Your task to perform on an android device: Go to internet settings Image 0: 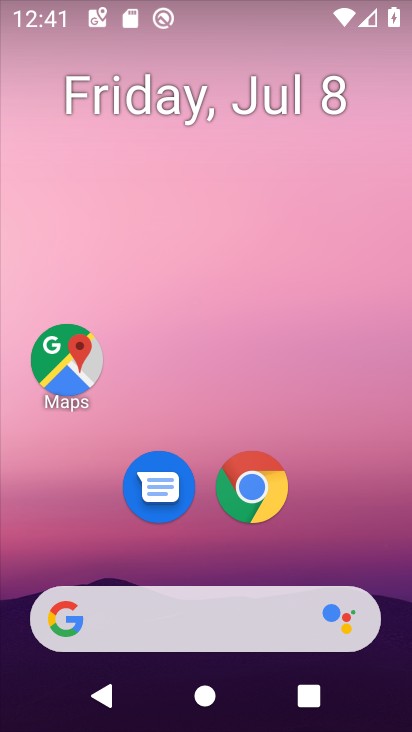
Step 0: drag from (377, 550) to (371, 95)
Your task to perform on an android device: Go to internet settings Image 1: 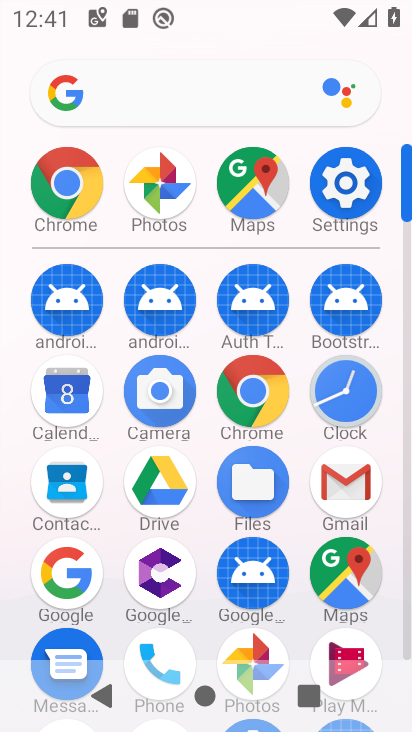
Step 1: click (362, 189)
Your task to perform on an android device: Go to internet settings Image 2: 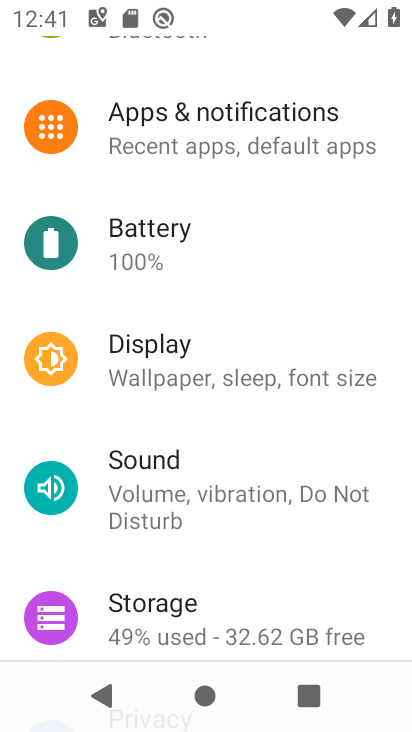
Step 2: drag from (370, 442) to (369, 328)
Your task to perform on an android device: Go to internet settings Image 3: 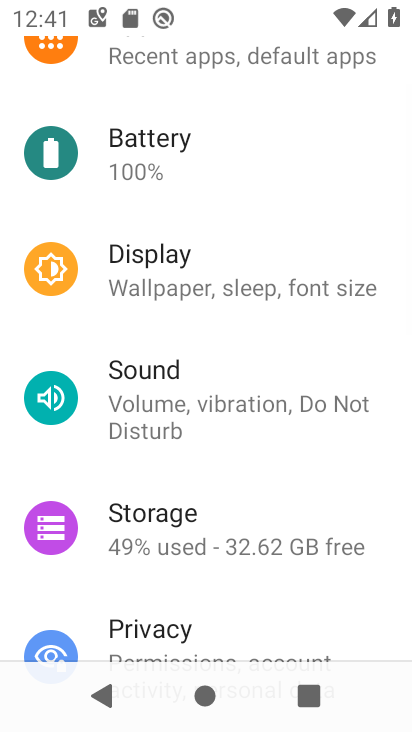
Step 3: drag from (353, 506) to (367, 310)
Your task to perform on an android device: Go to internet settings Image 4: 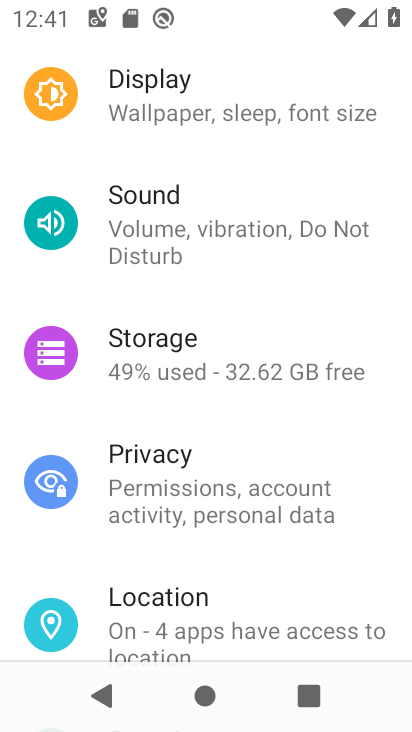
Step 4: drag from (361, 509) to (370, 323)
Your task to perform on an android device: Go to internet settings Image 5: 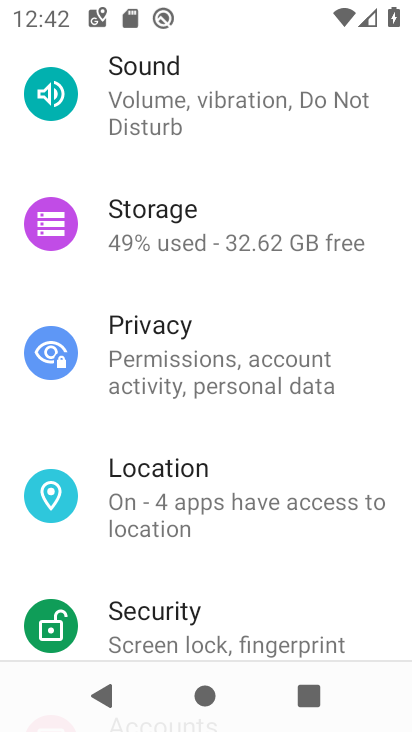
Step 5: drag from (360, 326) to (368, 432)
Your task to perform on an android device: Go to internet settings Image 6: 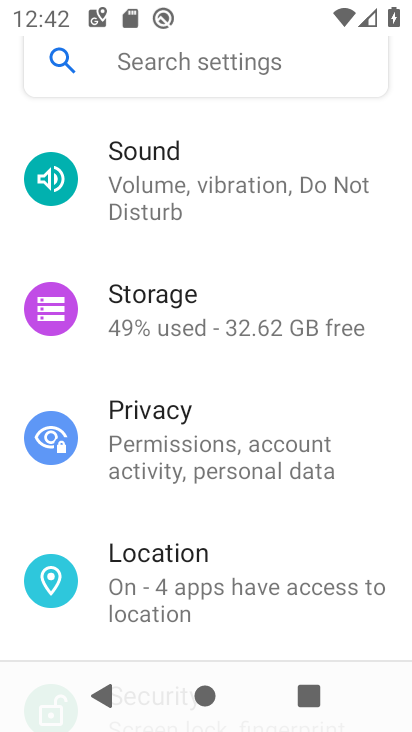
Step 6: drag from (360, 263) to (377, 370)
Your task to perform on an android device: Go to internet settings Image 7: 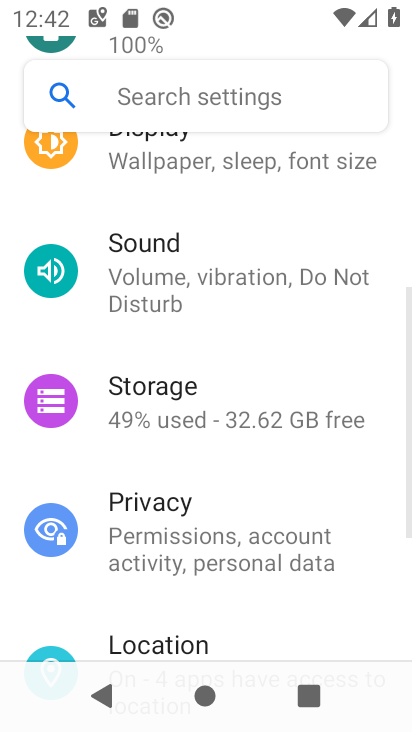
Step 7: drag from (388, 264) to (376, 367)
Your task to perform on an android device: Go to internet settings Image 8: 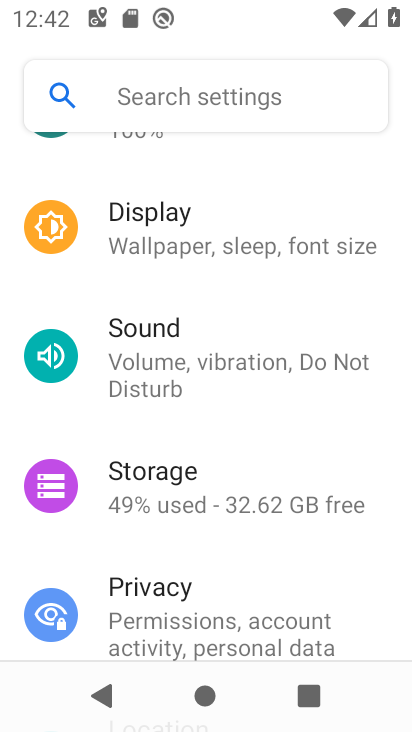
Step 8: drag from (385, 215) to (364, 365)
Your task to perform on an android device: Go to internet settings Image 9: 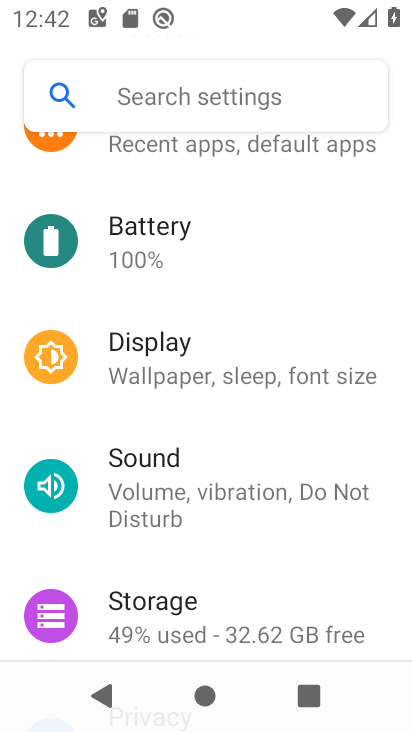
Step 9: drag from (354, 218) to (369, 361)
Your task to perform on an android device: Go to internet settings Image 10: 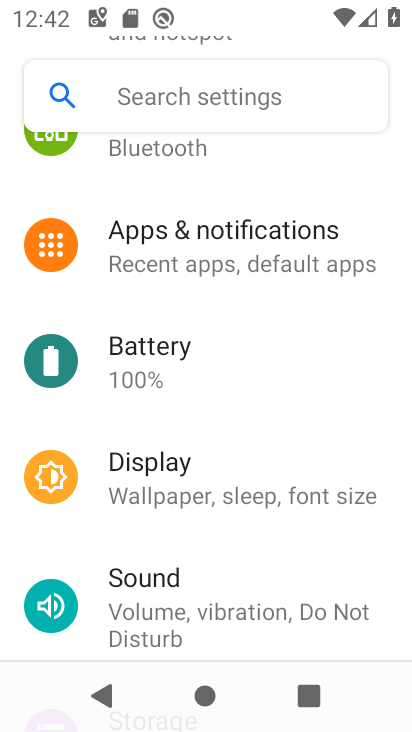
Step 10: drag from (344, 173) to (340, 377)
Your task to perform on an android device: Go to internet settings Image 11: 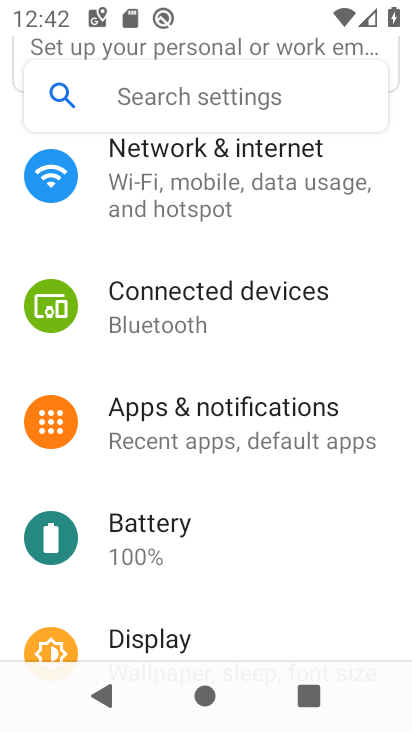
Step 11: drag from (374, 154) to (385, 333)
Your task to perform on an android device: Go to internet settings Image 12: 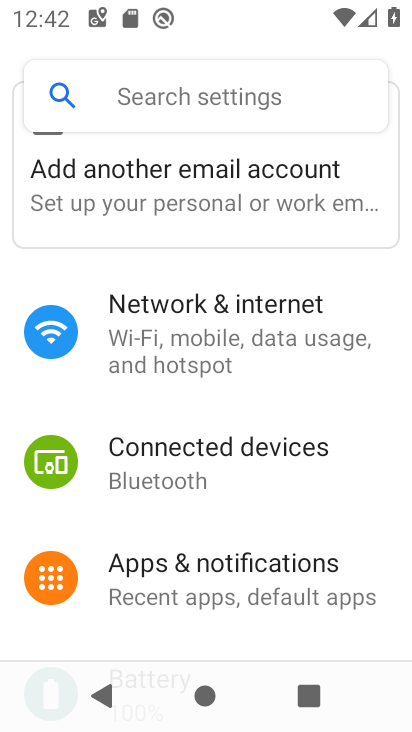
Step 12: click (261, 335)
Your task to perform on an android device: Go to internet settings Image 13: 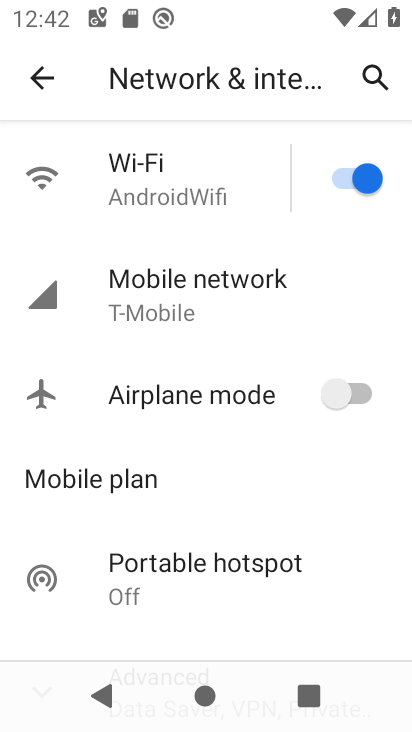
Step 13: task complete